Your task to perform on an android device: install app "WhatsApp Messenger" Image 0: 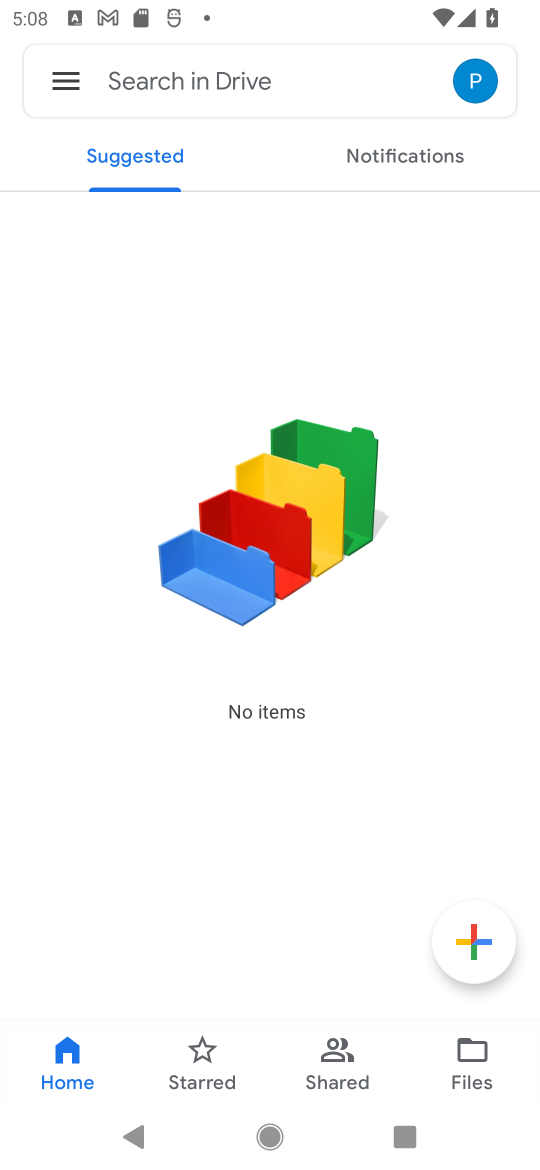
Step 0: press home button
Your task to perform on an android device: install app "WhatsApp Messenger" Image 1: 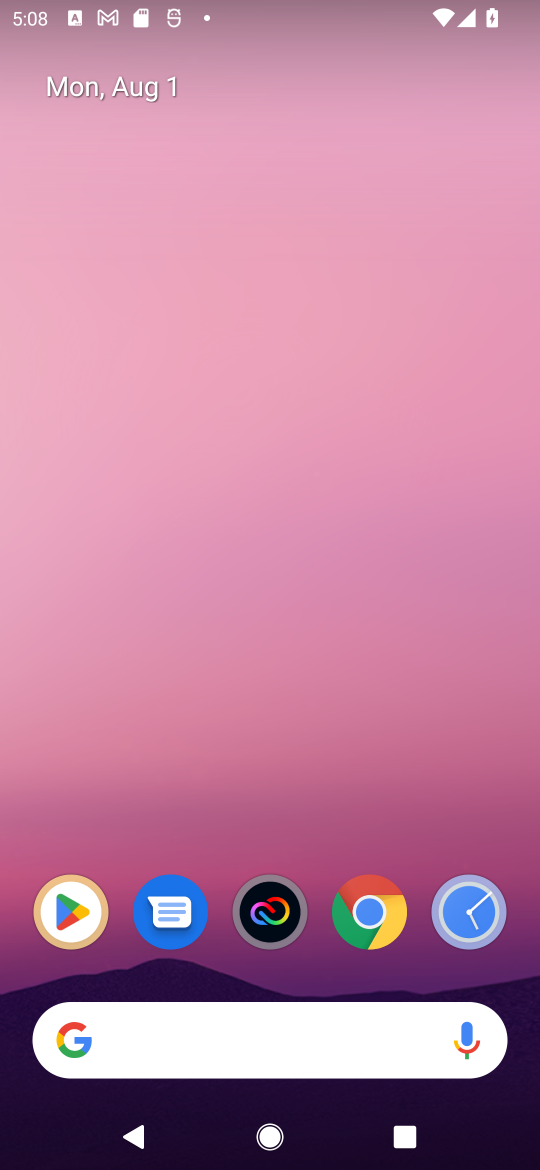
Step 1: click (57, 933)
Your task to perform on an android device: install app "WhatsApp Messenger" Image 2: 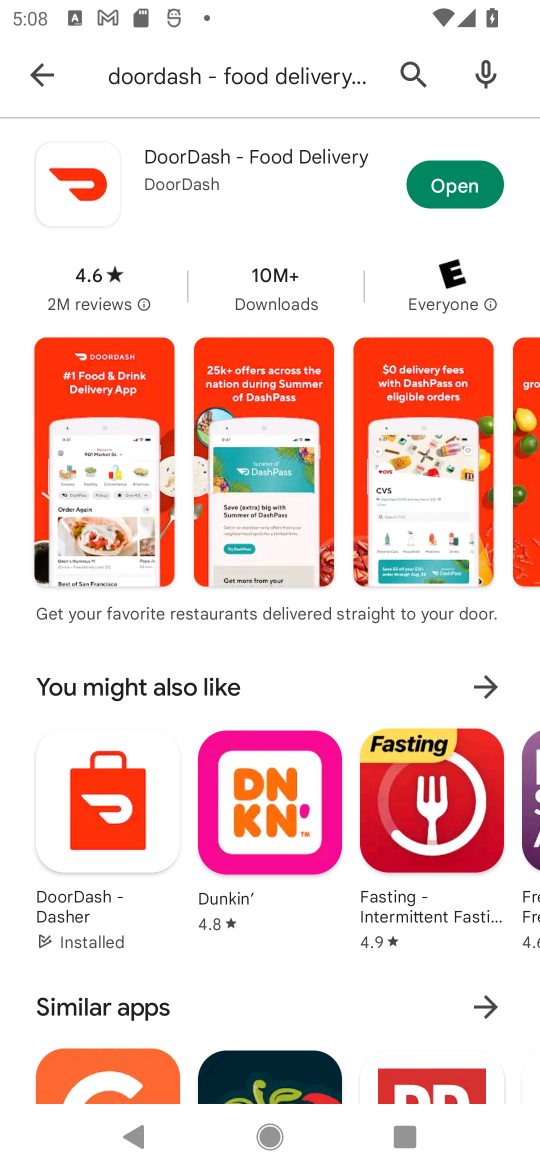
Step 2: click (413, 67)
Your task to perform on an android device: install app "WhatsApp Messenger" Image 3: 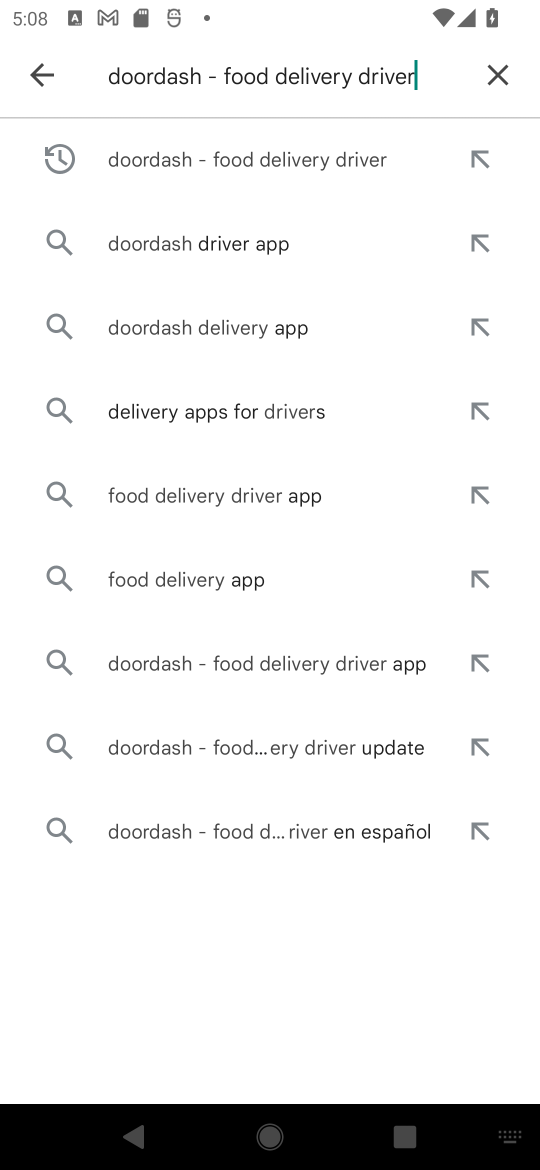
Step 3: click (488, 80)
Your task to perform on an android device: install app "WhatsApp Messenger" Image 4: 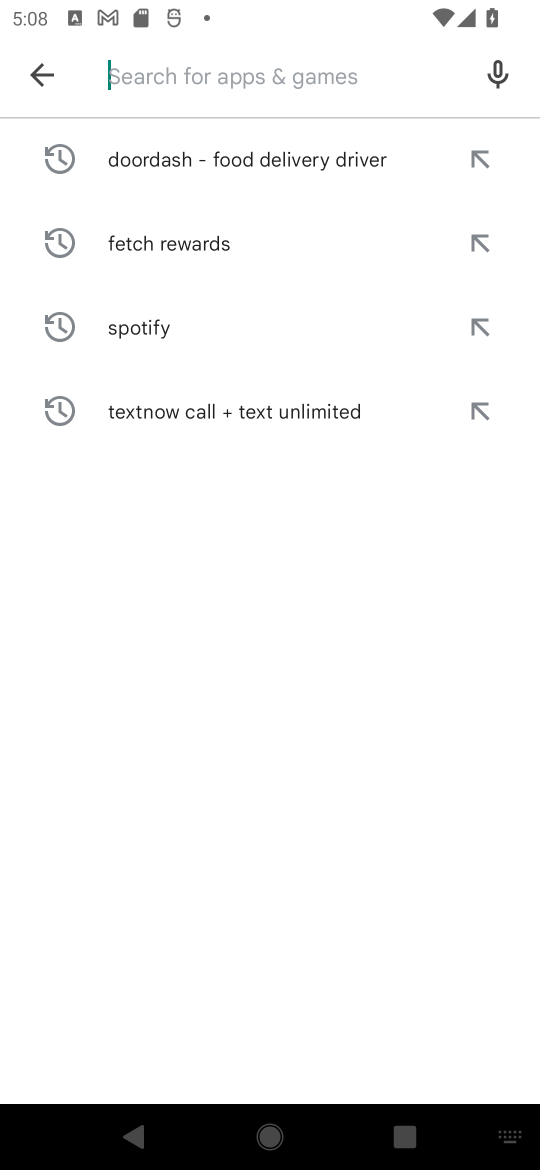
Step 4: type "WhatsApp Messenger"
Your task to perform on an android device: install app "WhatsApp Messenger" Image 5: 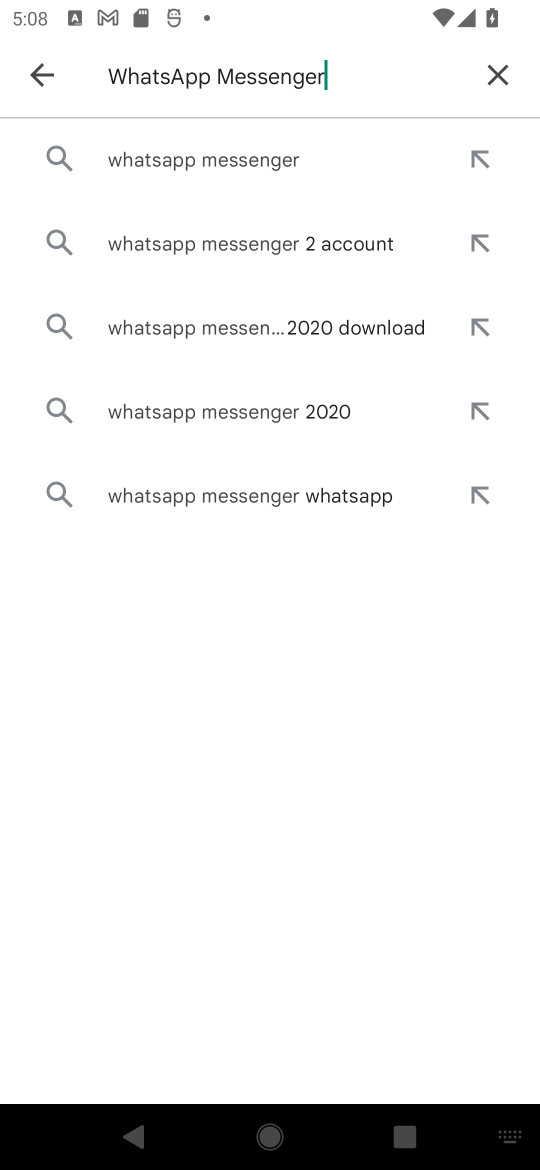
Step 5: click (152, 163)
Your task to perform on an android device: install app "WhatsApp Messenger" Image 6: 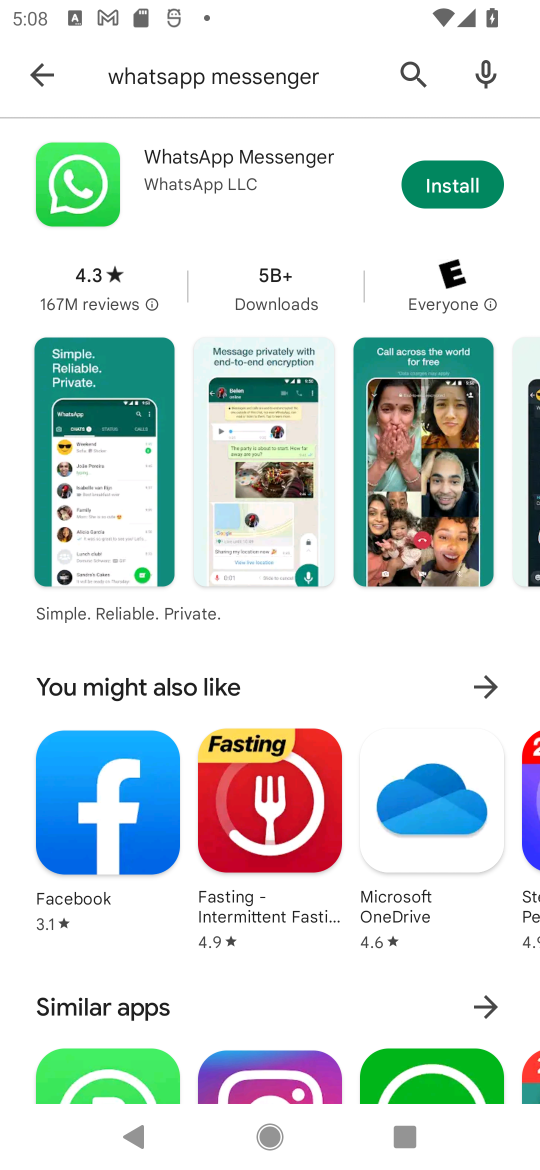
Step 6: click (454, 196)
Your task to perform on an android device: install app "WhatsApp Messenger" Image 7: 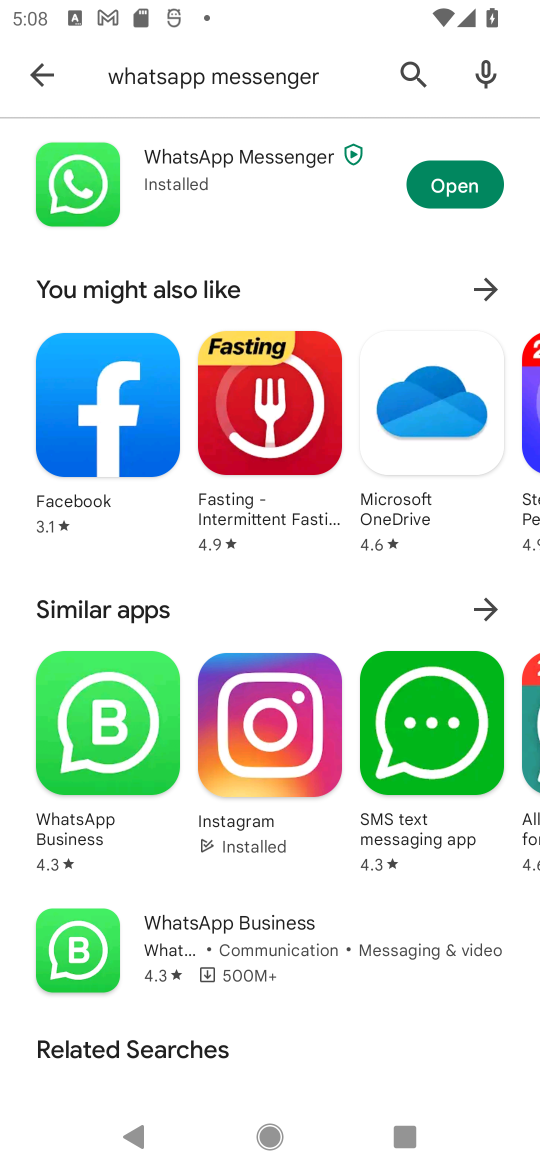
Step 7: task complete